Your task to perform on an android device: open app "Google Sheets" Image 0: 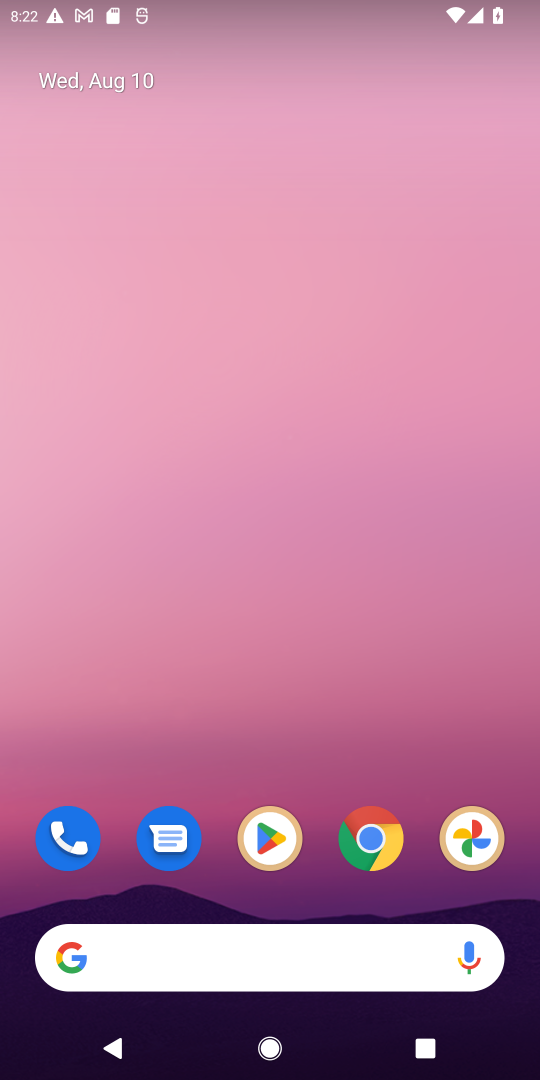
Step 0: press home button
Your task to perform on an android device: open app "Google Sheets" Image 1: 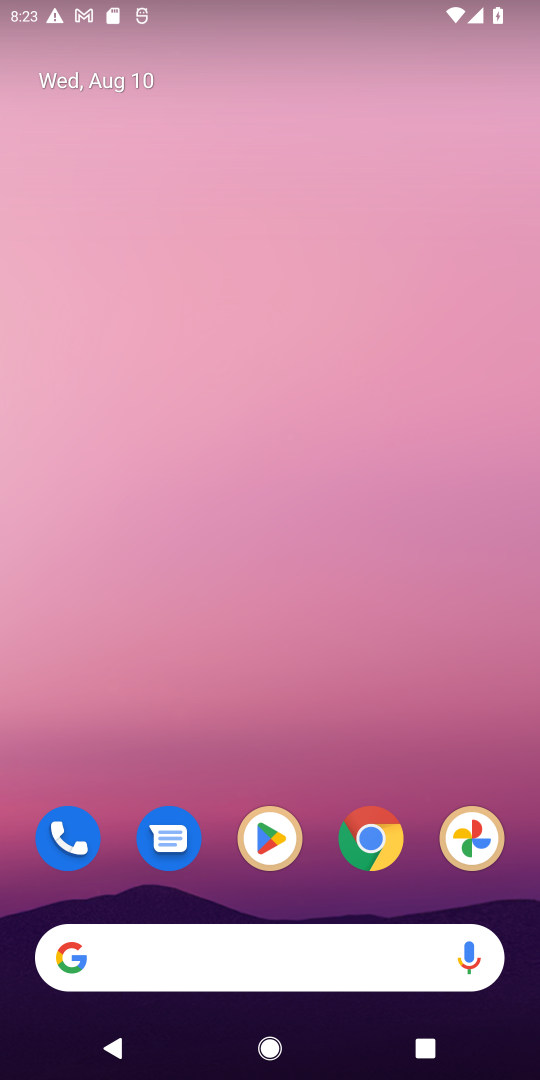
Step 1: click (266, 830)
Your task to perform on an android device: open app "Google Sheets" Image 2: 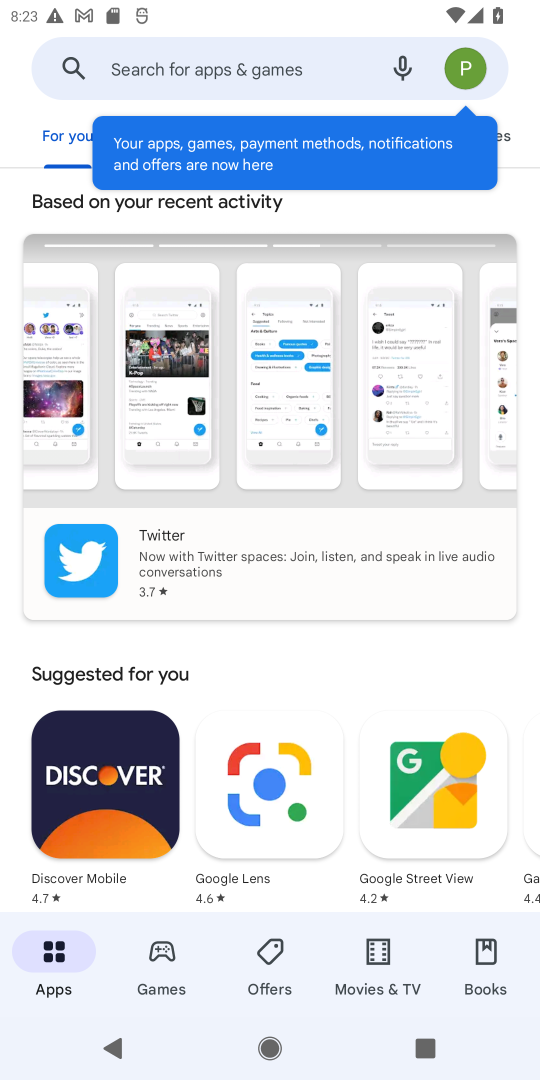
Step 2: click (170, 53)
Your task to perform on an android device: open app "Google Sheets" Image 3: 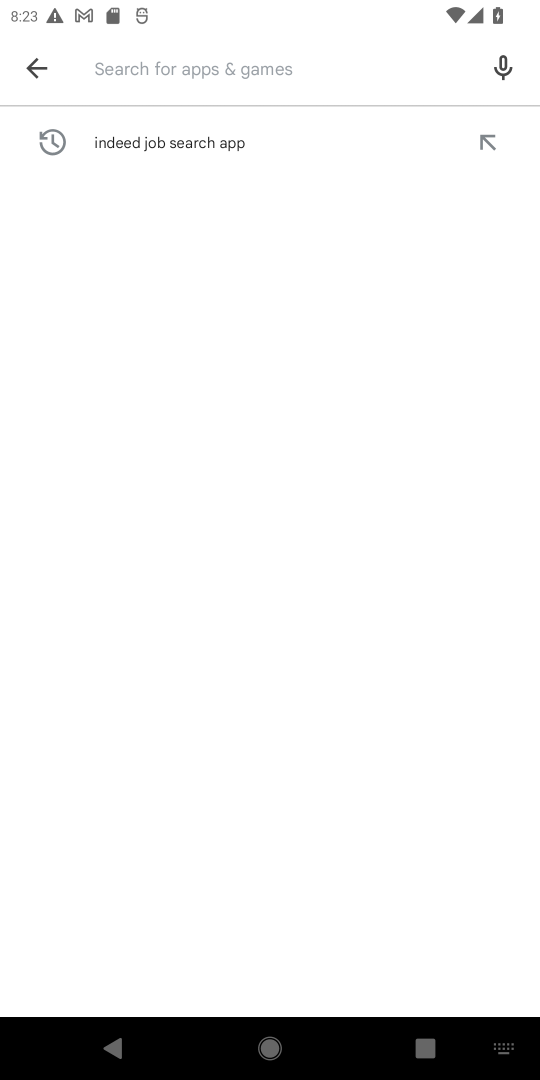
Step 3: type "Google Sheets"
Your task to perform on an android device: open app "Google Sheets" Image 4: 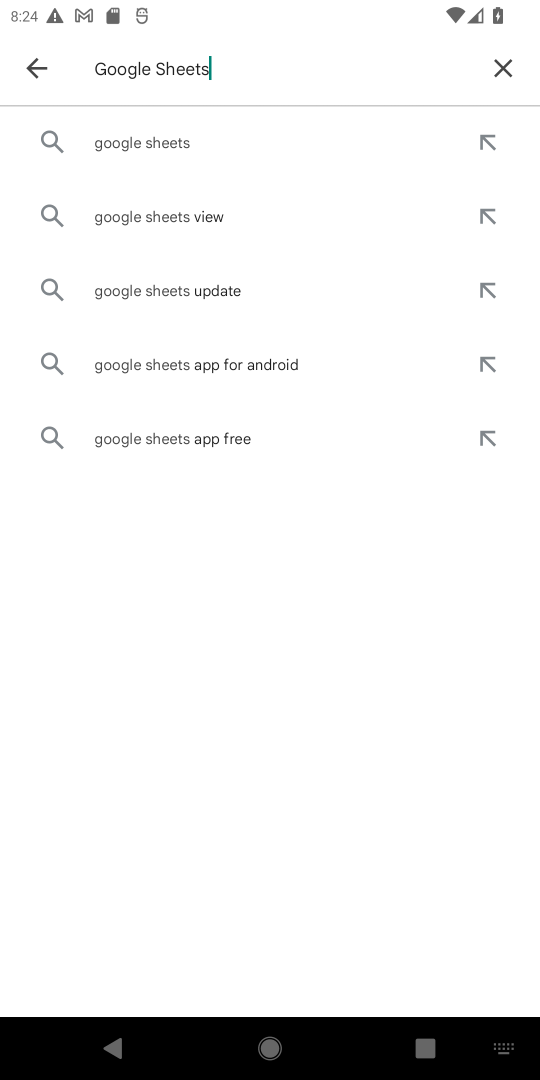
Step 4: click (149, 137)
Your task to perform on an android device: open app "Google Sheets" Image 5: 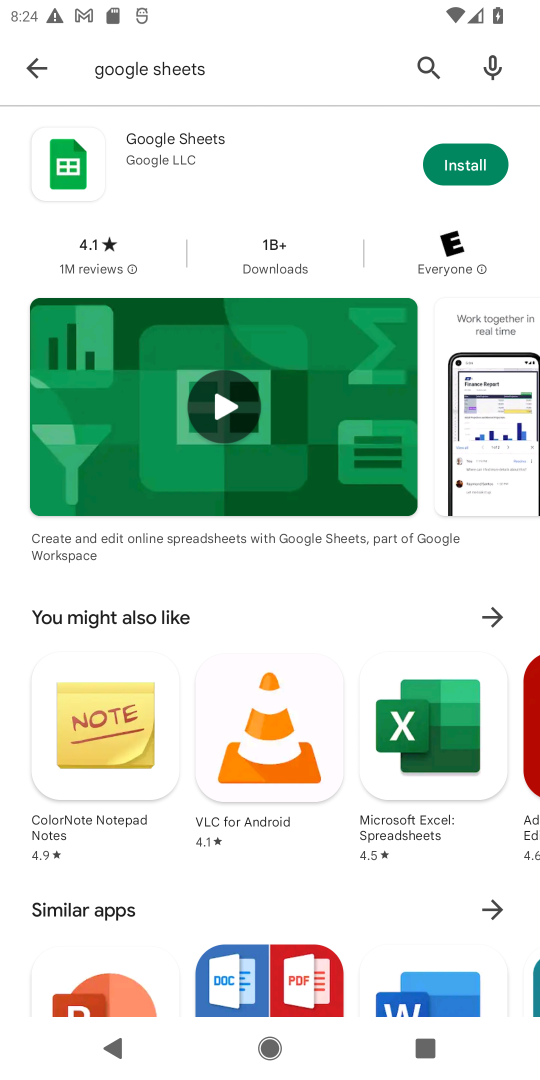
Step 5: task complete